Your task to perform on an android device: turn off notifications in google photos Image 0: 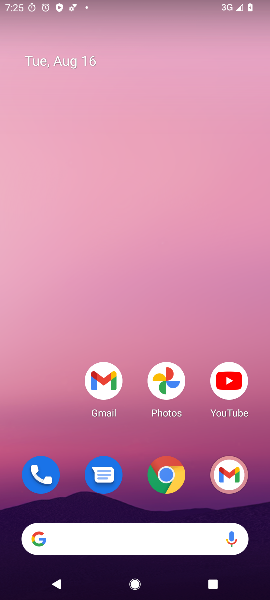
Step 0: drag from (192, 496) to (116, 47)
Your task to perform on an android device: turn off notifications in google photos Image 1: 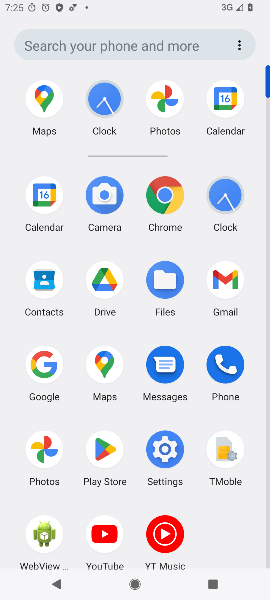
Step 1: click (52, 440)
Your task to perform on an android device: turn off notifications in google photos Image 2: 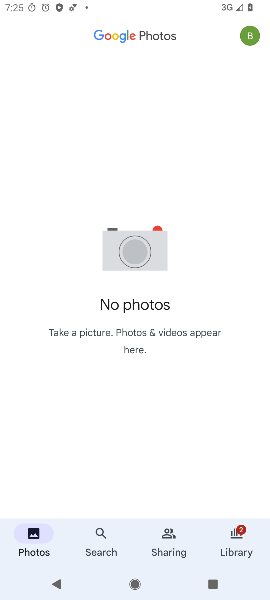
Step 2: click (248, 33)
Your task to perform on an android device: turn off notifications in google photos Image 3: 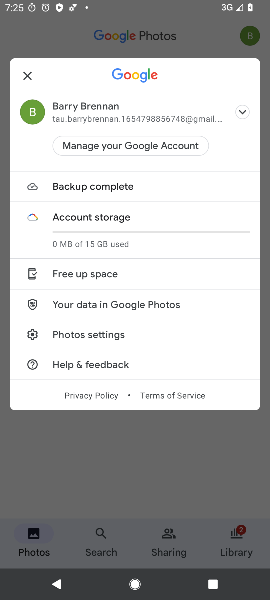
Step 3: click (96, 330)
Your task to perform on an android device: turn off notifications in google photos Image 4: 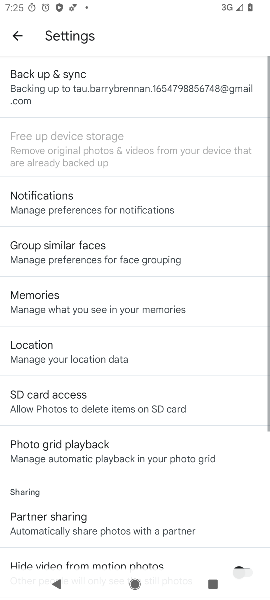
Step 4: click (93, 205)
Your task to perform on an android device: turn off notifications in google photos Image 5: 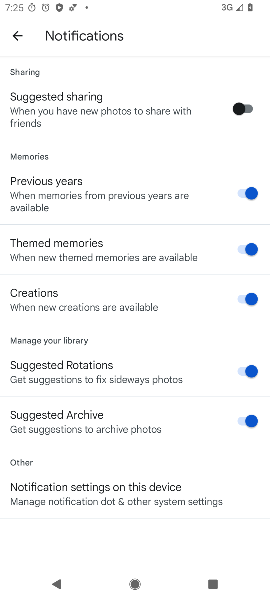
Step 5: task complete